Your task to perform on an android device: check data usage Image 0: 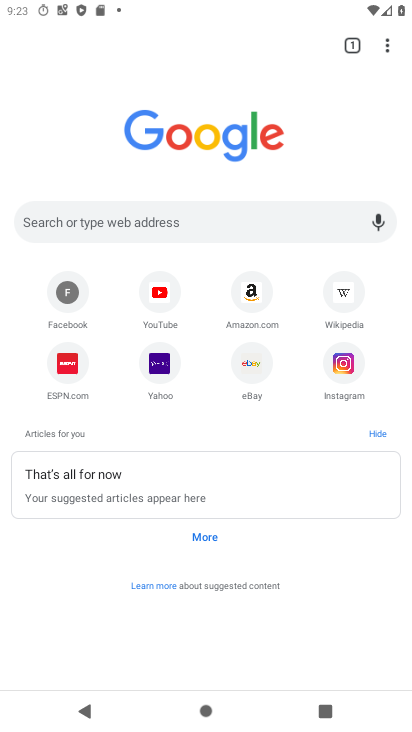
Step 0: click (389, 51)
Your task to perform on an android device: check data usage Image 1: 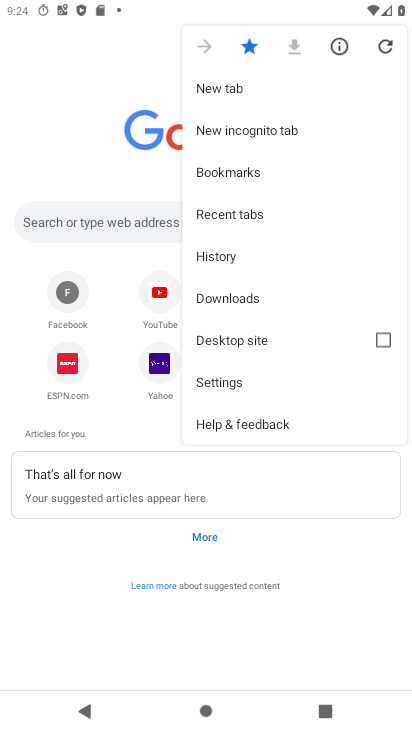
Step 1: press home button
Your task to perform on an android device: check data usage Image 2: 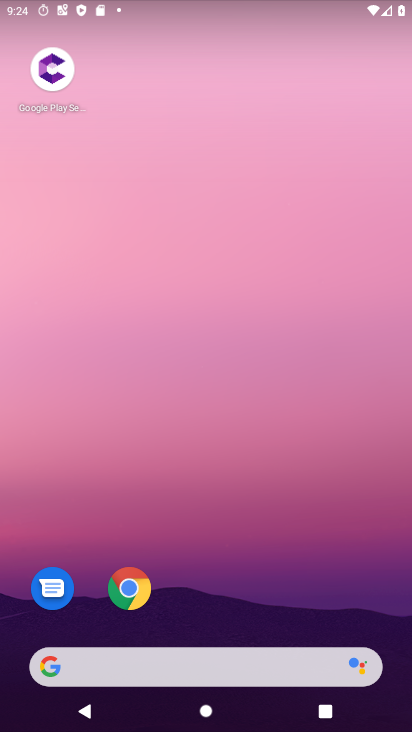
Step 2: drag from (245, 520) to (349, 15)
Your task to perform on an android device: check data usage Image 3: 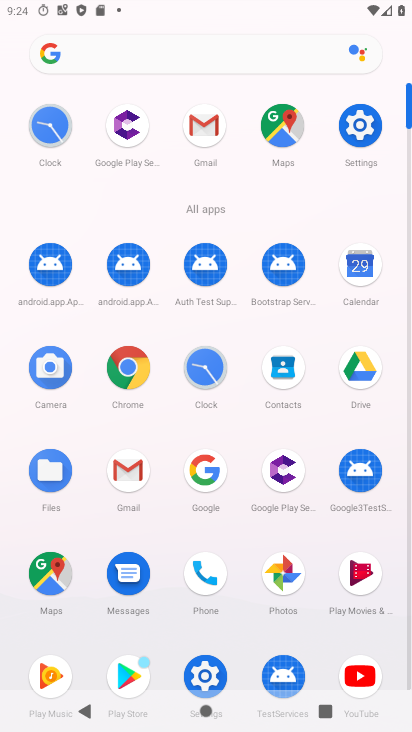
Step 3: click (361, 115)
Your task to perform on an android device: check data usage Image 4: 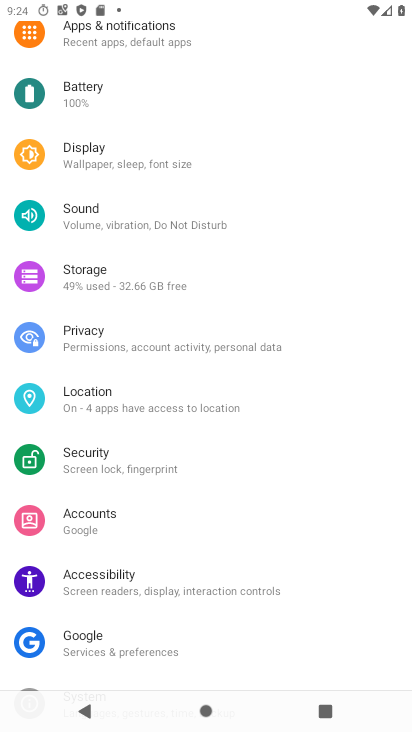
Step 4: drag from (157, 133) to (148, 343)
Your task to perform on an android device: check data usage Image 5: 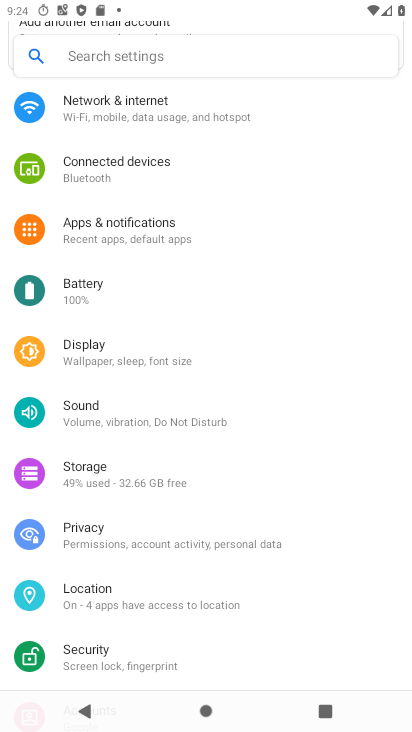
Step 5: click (158, 111)
Your task to perform on an android device: check data usage Image 6: 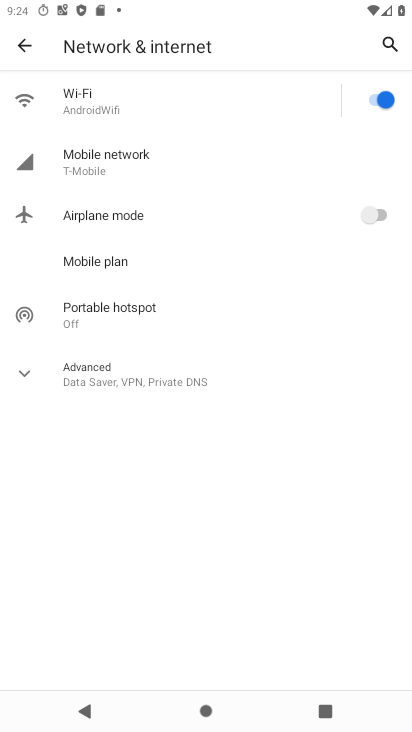
Step 6: click (133, 161)
Your task to perform on an android device: check data usage Image 7: 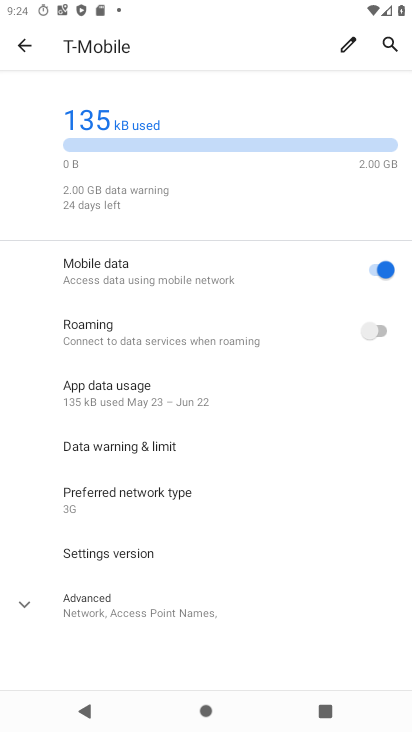
Step 7: click (191, 407)
Your task to perform on an android device: check data usage Image 8: 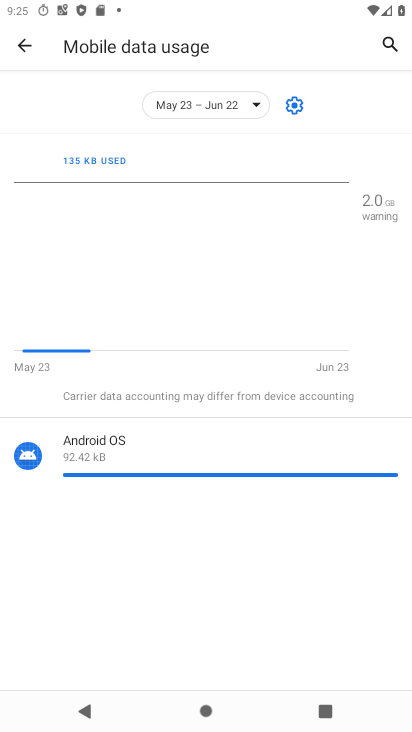
Step 8: task complete